Your task to perform on an android device: open a new tab in the chrome app Image 0: 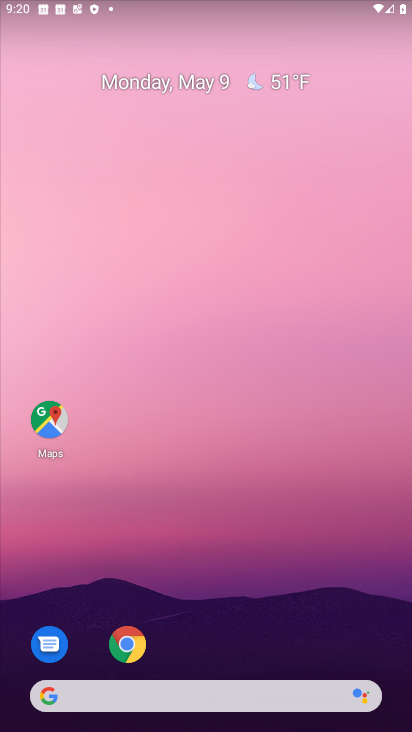
Step 0: drag from (215, 670) to (211, 19)
Your task to perform on an android device: open a new tab in the chrome app Image 1: 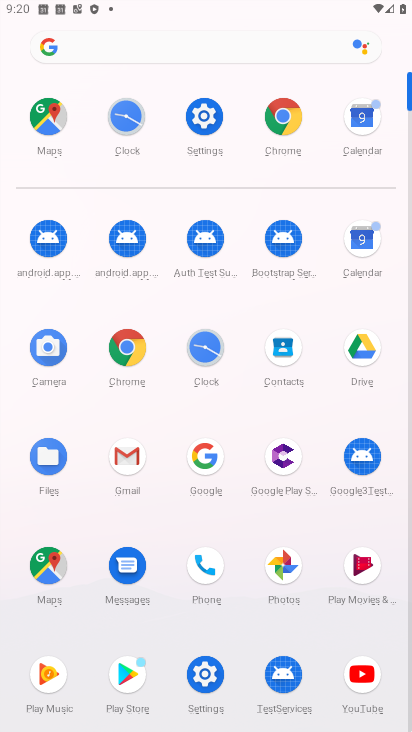
Step 1: click (111, 336)
Your task to perform on an android device: open a new tab in the chrome app Image 2: 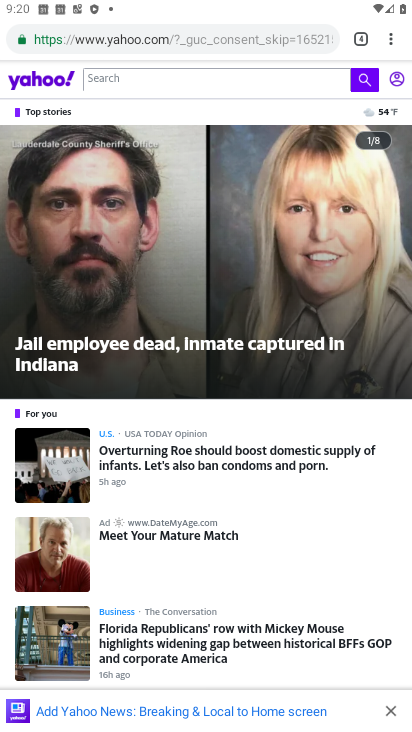
Step 2: click (384, 50)
Your task to perform on an android device: open a new tab in the chrome app Image 3: 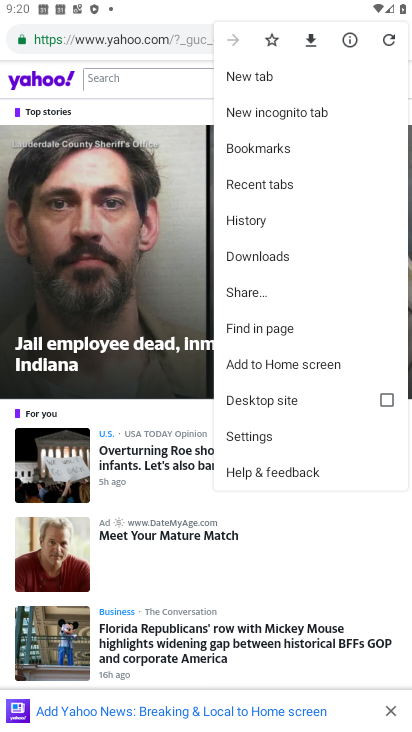
Step 3: click (276, 69)
Your task to perform on an android device: open a new tab in the chrome app Image 4: 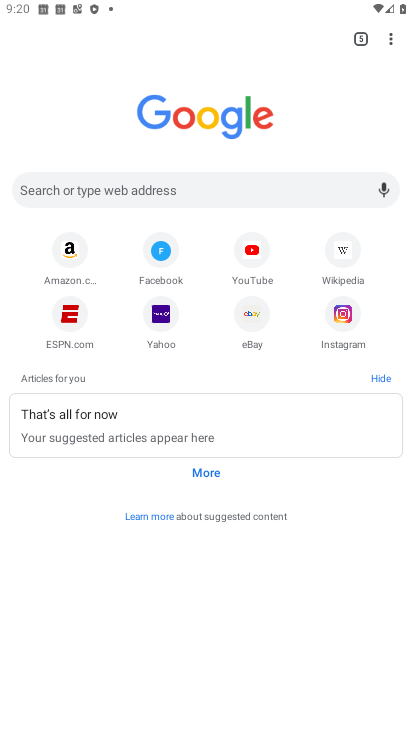
Step 4: task complete